Your task to perform on an android device: change the upload size in google photos Image 0: 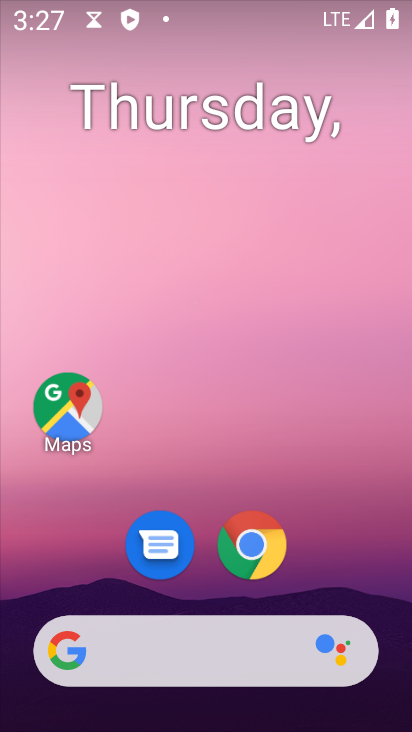
Step 0: drag from (378, 533) to (401, 83)
Your task to perform on an android device: change the upload size in google photos Image 1: 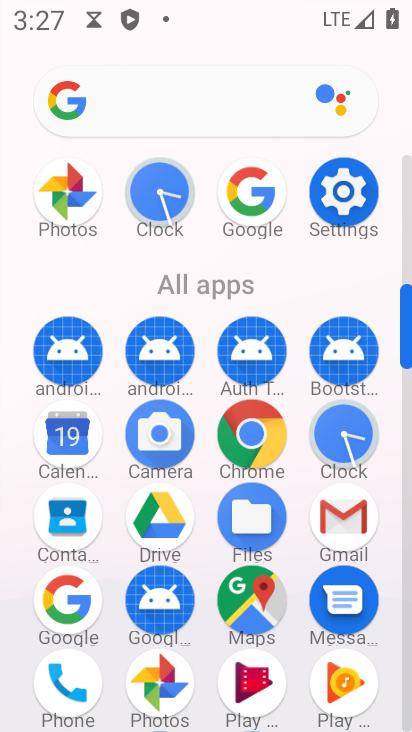
Step 1: click (81, 193)
Your task to perform on an android device: change the upload size in google photos Image 2: 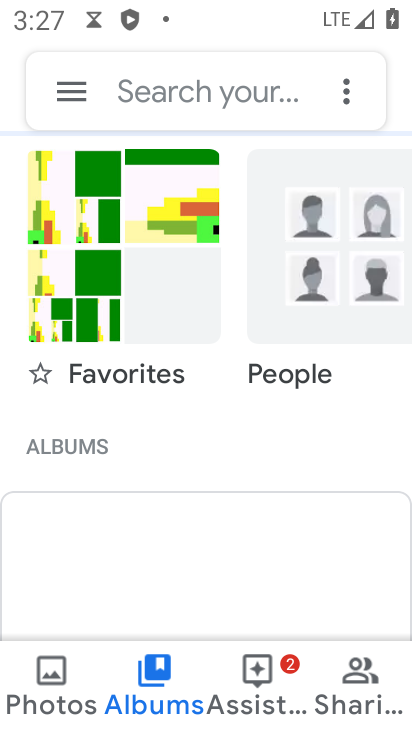
Step 2: click (76, 107)
Your task to perform on an android device: change the upload size in google photos Image 3: 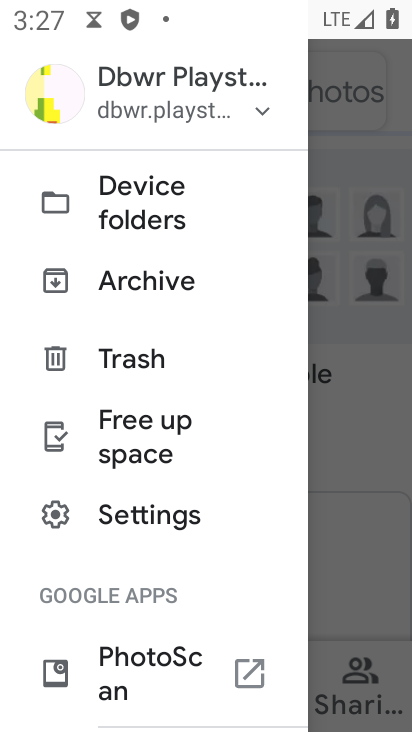
Step 3: drag from (135, 588) to (194, 204)
Your task to perform on an android device: change the upload size in google photos Image 4: 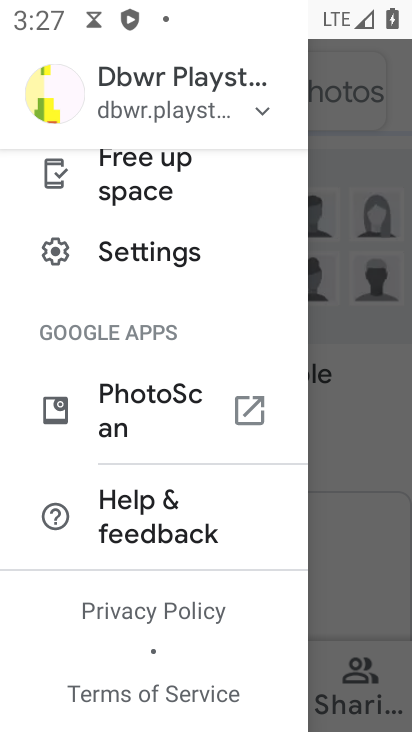
Step 4: click (144, 255)
Your task to perform on an android device: change the upload size in google photos Image 5: 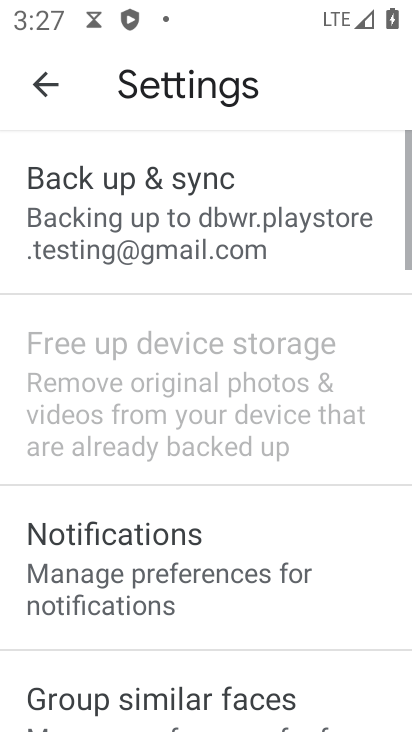
Step 5: click (144, 255)
Your task to perform on an android device: change the upload size in google photos Image 6: 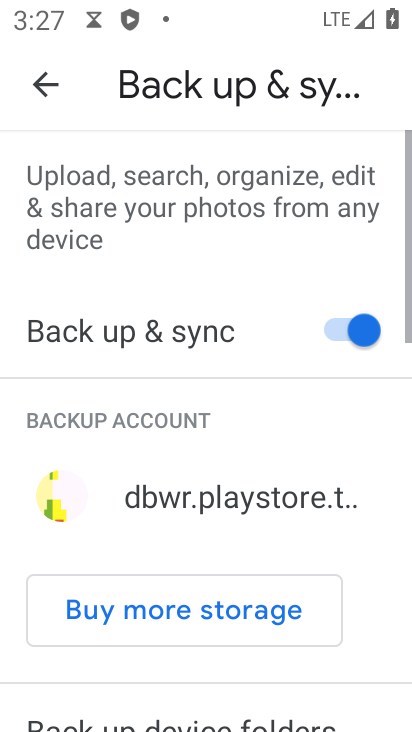
Step 6: drag from (159, 539) to (236, 158)
Your task to perform on an android device: change the upload size in google photos Image 7: 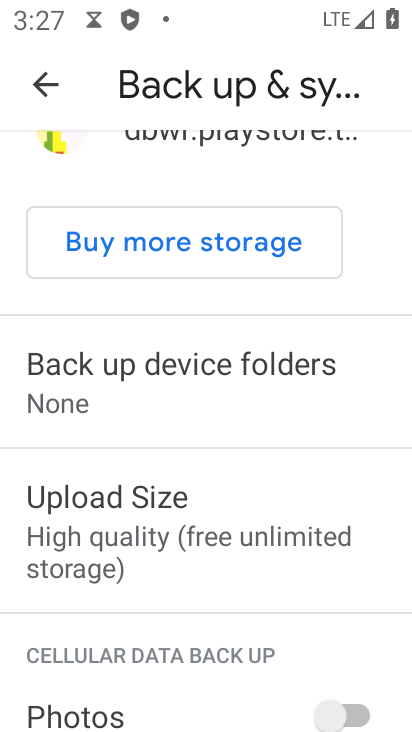
Step 7: click (159, 501)
Your task to perform on an android device: change the upload size in google photos Image 8: 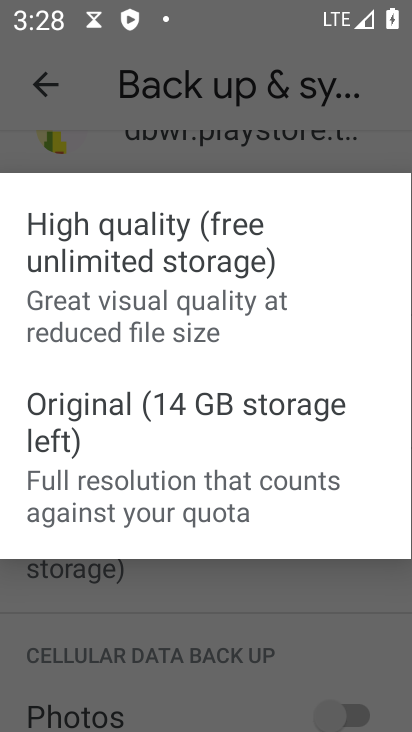
Step 8: click (143, 465)
Your task to perform on an android device: change the upload size in google photos Image 9: 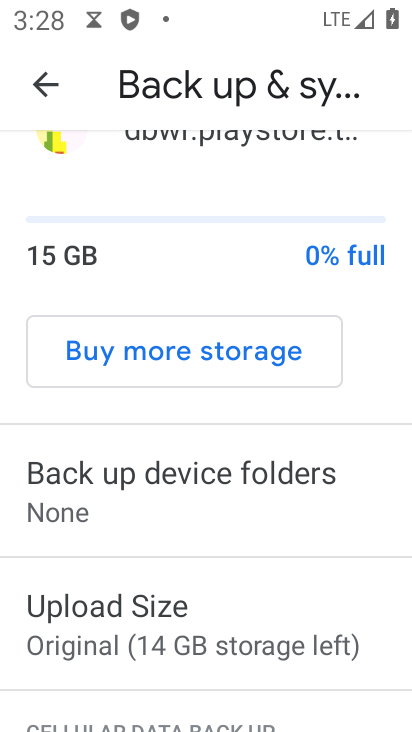
Step 9: task complete